Your task to perform on an android device: Set the phone to "Do not disturb". Image 0: 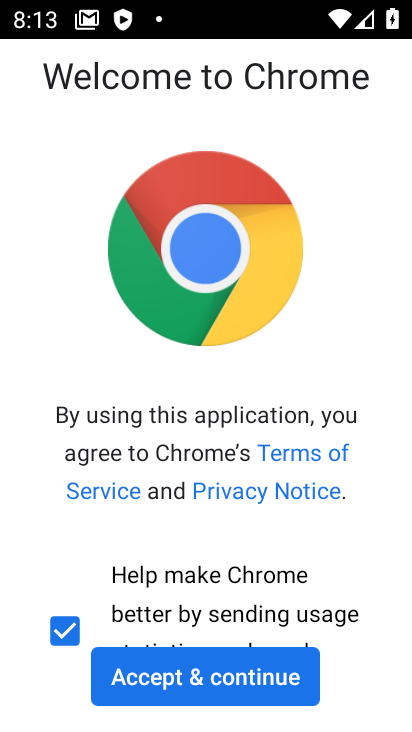
Step 0: press home button
Your task to perform on an android device: Set the phone to "Do not disturb". Image 1: 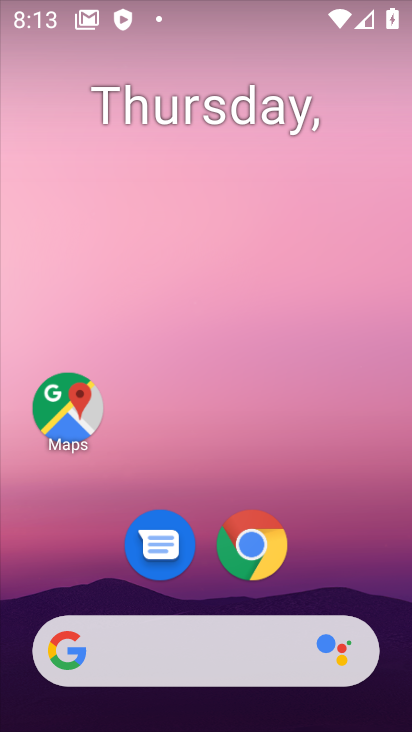
Step 1: drag from (329, 535) to (301, 2)
Your task to perform on an android device: Set the phone to "Do not disturb". Image 2: 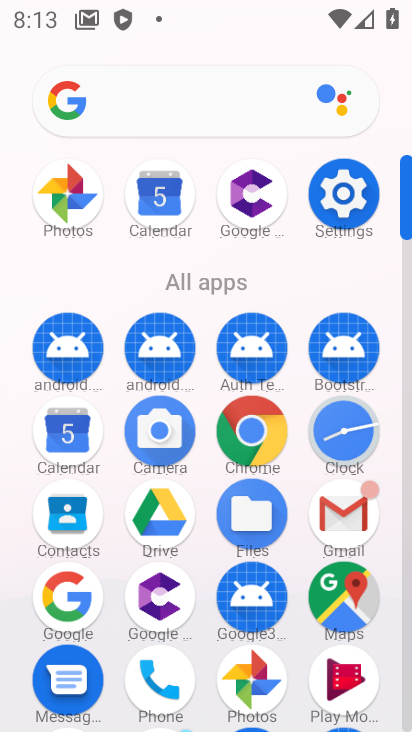
Step 2: click (343, 191)
Your task to perform on an android device: Set the phone to "Do not disturb". Image 3: 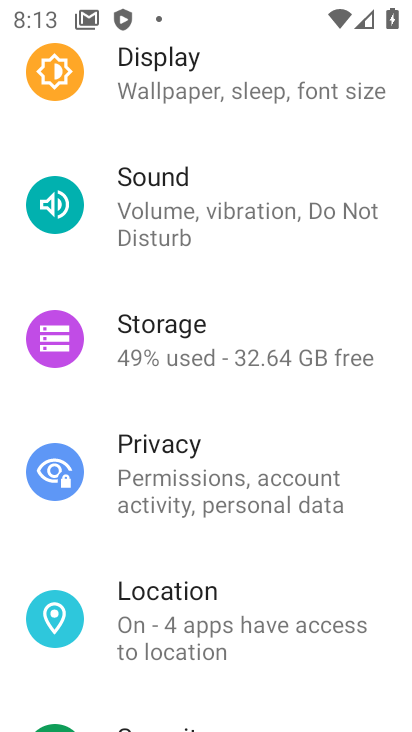
Step 3: click (239, 204)
Your task to perform on an android device: Set the phone to "Do not disturb". Image 4: 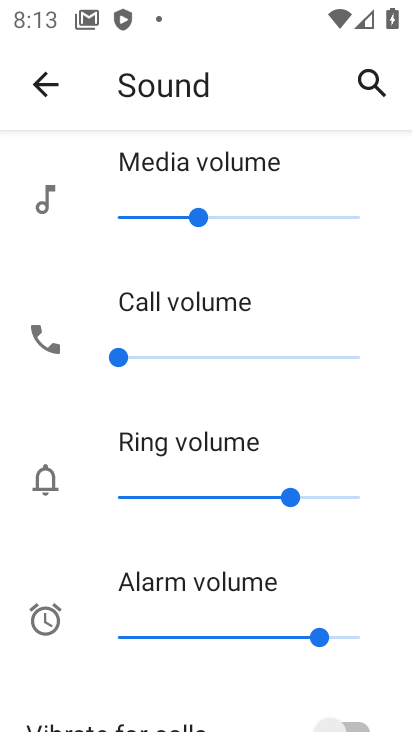
Step 4: drag from (216, 474) to (279, 346)
Your task to perform on an android device: Set the phone to "Do not disturb". Image 5: 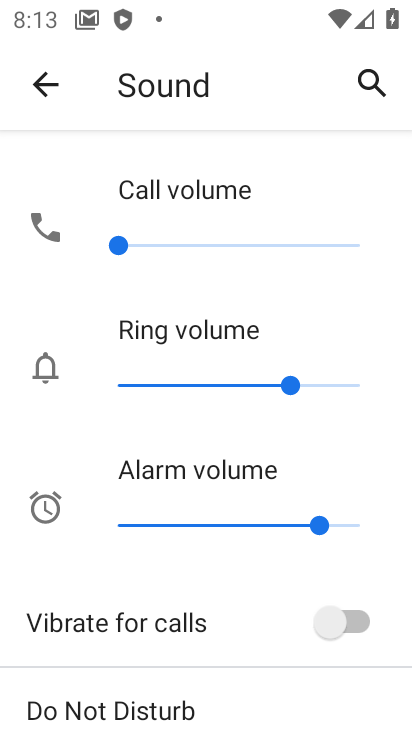
Step 5: drag from (189, 561) to (248, 440)
Your task to perform on an android device: Set the phone to "Do not disturb". Image 6: 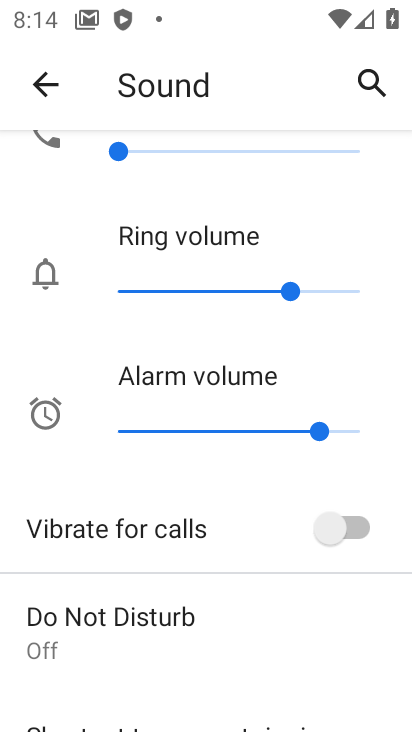
Step 6: drag from (206, 586) to (278, 444)
Your task to perform on an android device: Set the phone to "Do not disturb". Image 7: 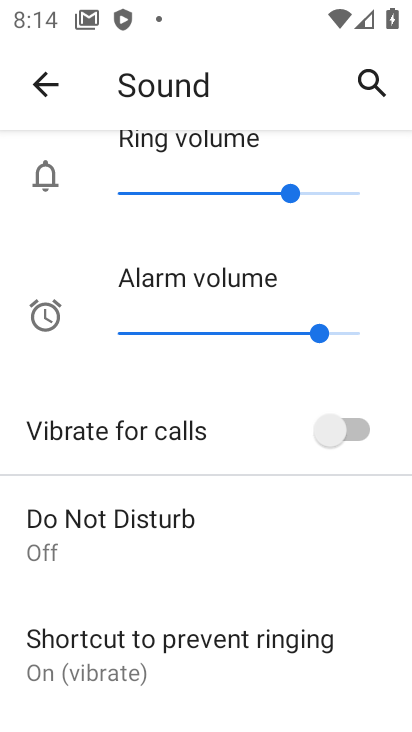
Step 7: click (148, 514)
Your task to perform on an android device: Set the phone to "Do not disturb". Image 8: 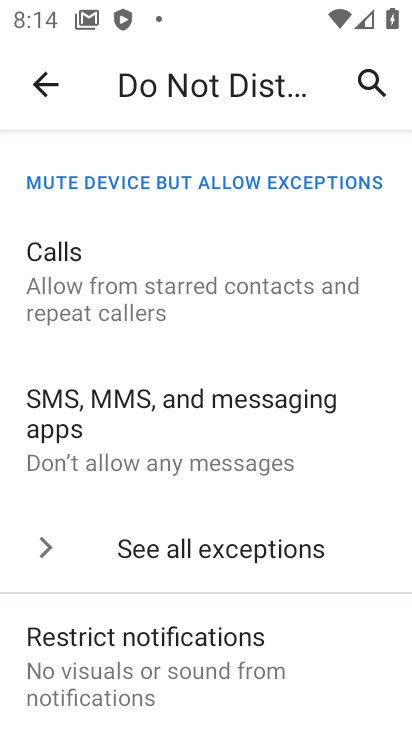
Step 8: drag from (144, 621) to (189, 504)
Your task to perform on an android device: Set the phone to "Do not disturb". Image 9: 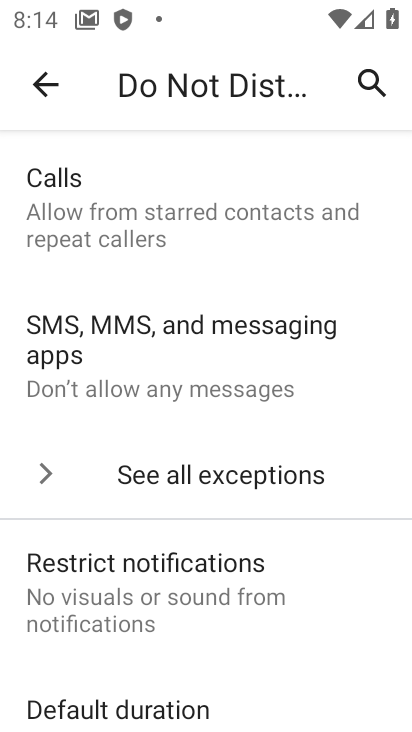
Step 9: drag from (169, 609) to (244, 475)
Your task to perform on an android device: Set the phone to "Do not disturb". Image 10: 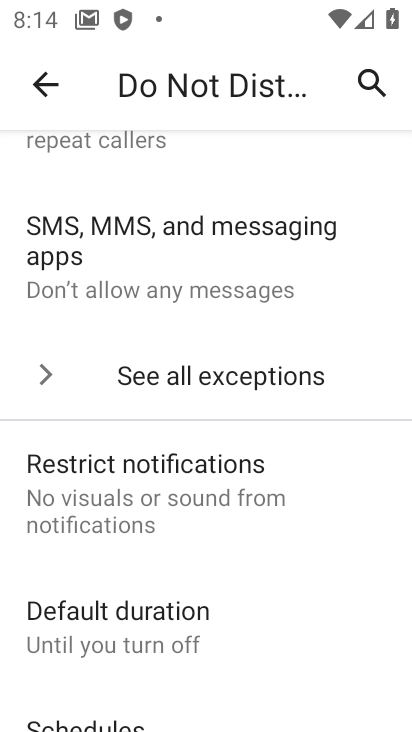
Step 10: drag from (197, 643) to (239, 510)
Your task to perform on an android device: Set the phone to "Do not disturb". Image 11: 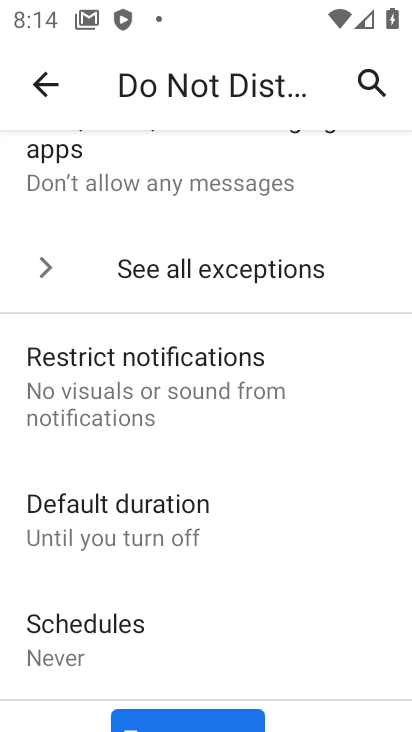
Step 11: drag from (199, 665) to (258, 532)
Your task to perform on an android device: Set the phone to "Do not disturb". Image 12: 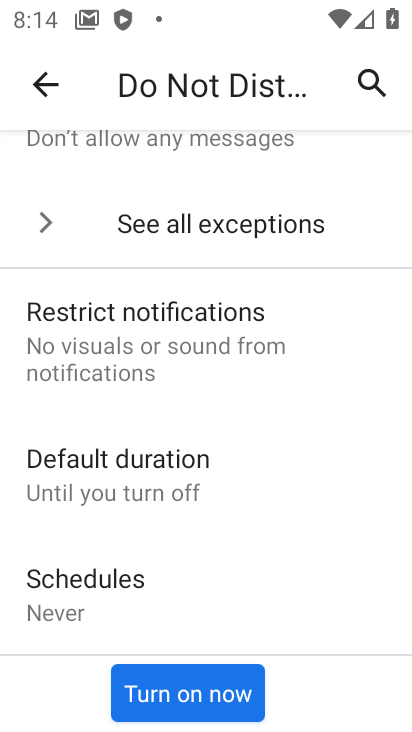
Step 12: click (204, 681)
Your task to perform on an android device: Set the phone to "Do not disturb". Image 13: 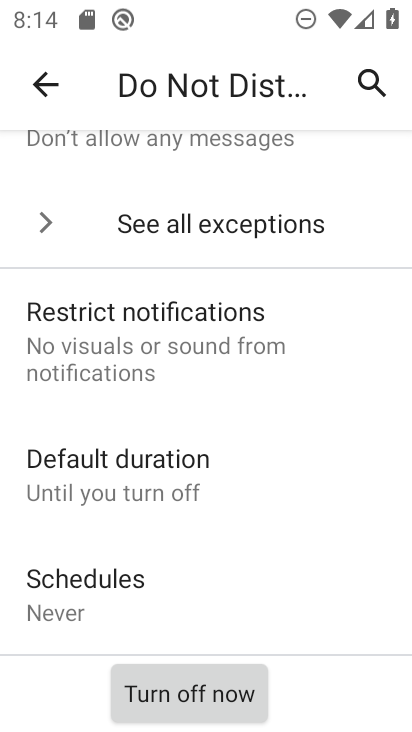
Step 13: task complete